Your task to perform on an android device: find which apps use the phone's location Image 0: 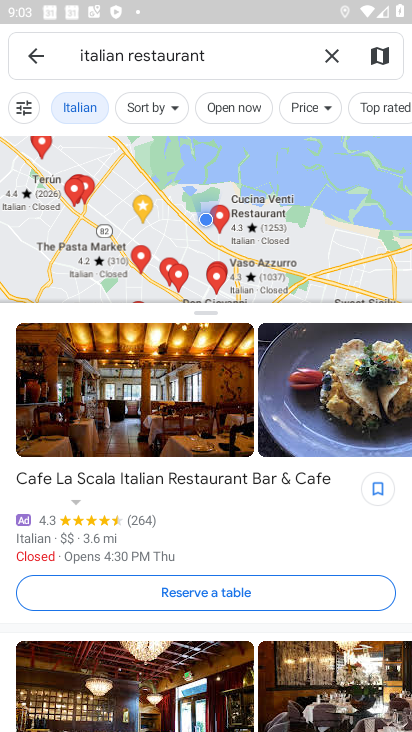
Step 0: press home button
Your task to perform on an android device: find which apps use the phone's location Image 1: 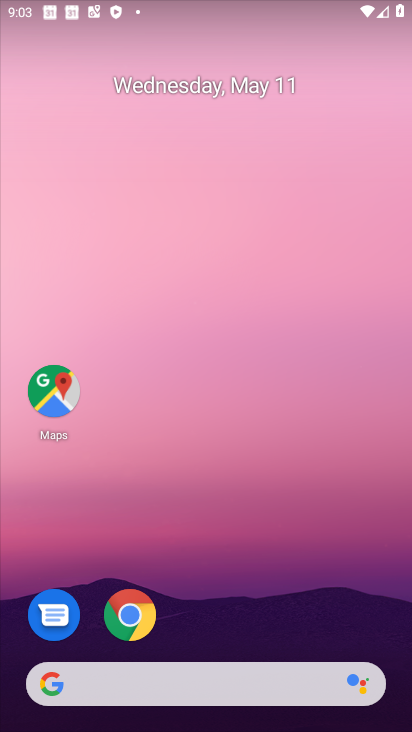
Step 1: press home button
Your task to perform on an android device: find which apps use the phone's location Image 2: 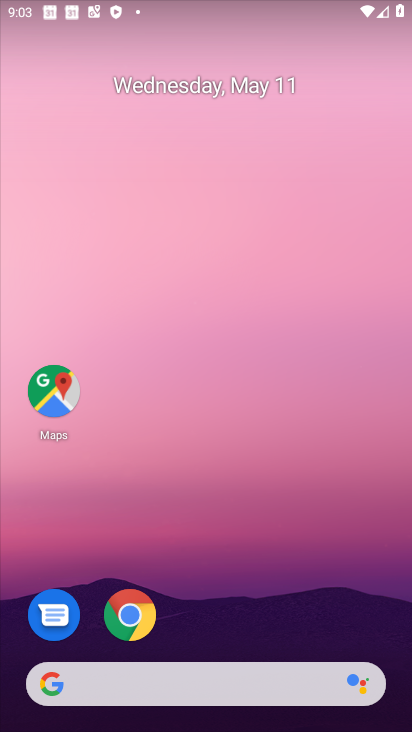
Step 2: drag from (12, 668) to (265, 136)
Your task to perform on an android device: find which apps use the phone's location Image 3: 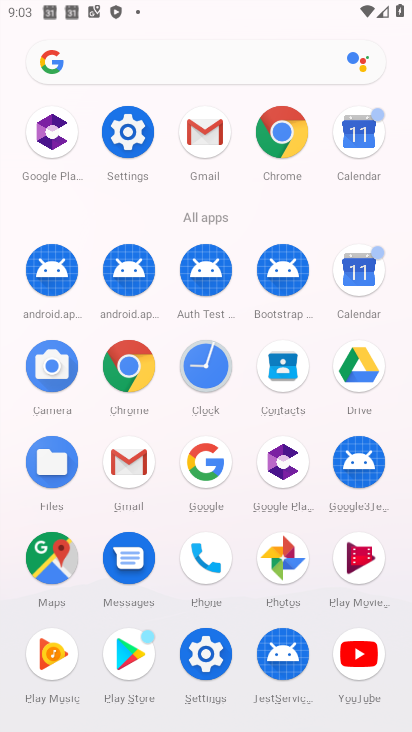
Step 3: click (130, 128)
Your task to perform on an android device: find which apps use the phone's location Image 4: 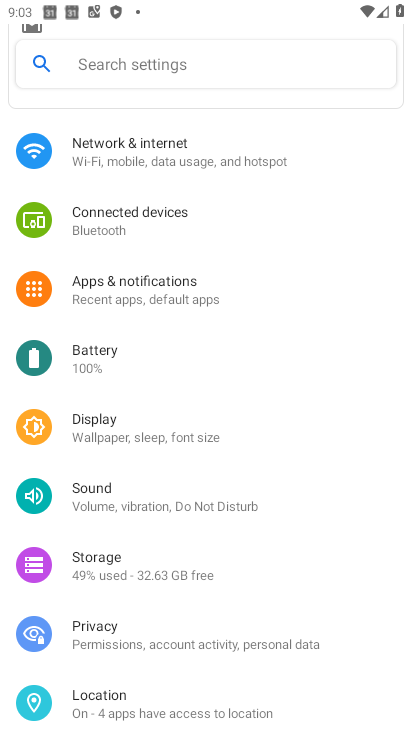
Step 4: click (198, 632)
Your task to perform on an android device: find which apps use the phone's location Image 5: 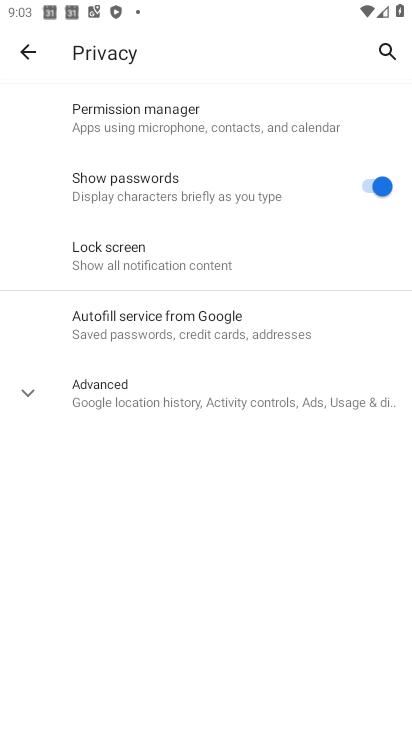
Step 5: click (130, 392)
Your task to perform on an android device: find which apps use the phone's location Image 6: 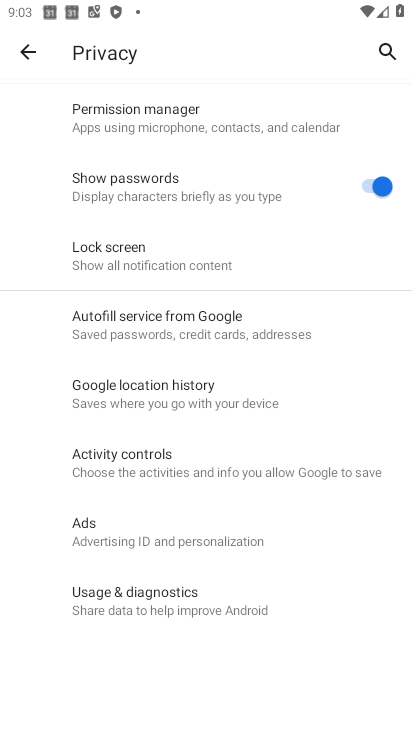
Step 6: press back button
Your task to perform on an android device: find which apps use the phone's location Image 7: 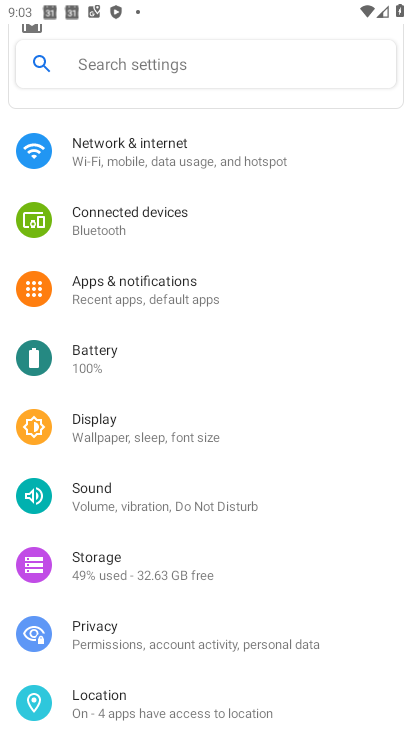
Step 7: click (95, 718)
Your task to perform on an android device: find which apps use the phone's location Image 8: 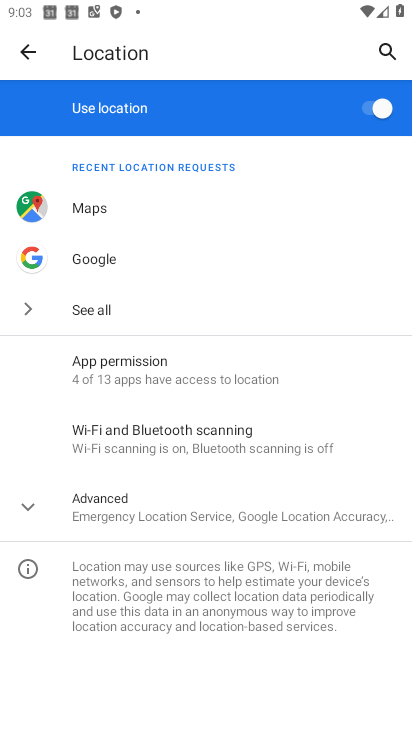
Step 8: click (153, 372)
Your task to perform on an android device: find which apps use the phone's location Image 9: 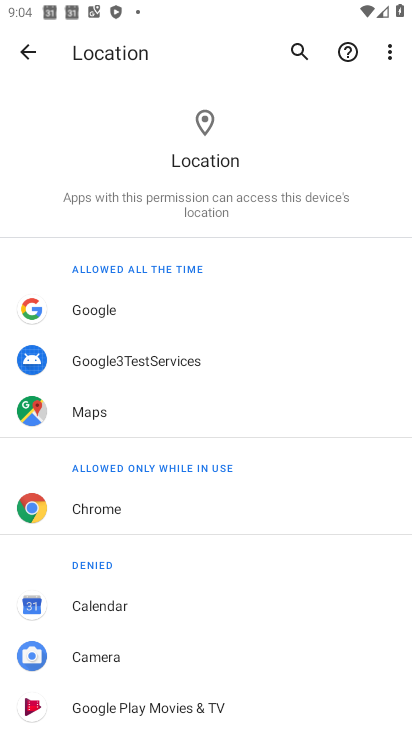
Step 9: task complete